Your task to perform on an android device: read, delete, or share a saved page in the chrome app Image 0: 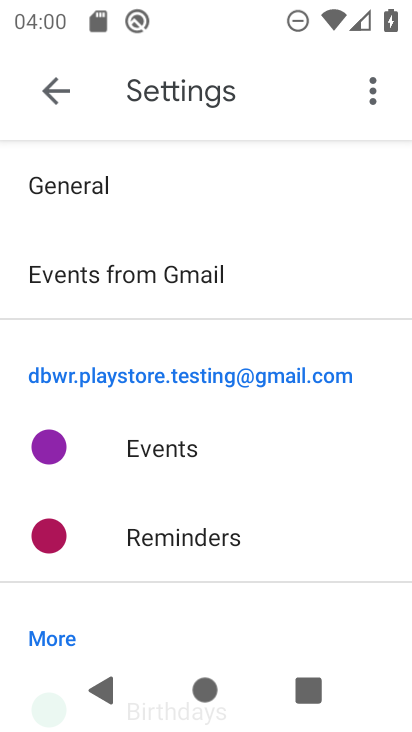
Step 0: press home button
Your task to perform on an android device: read, delete, or share a saved page in the chrome app Image 1: 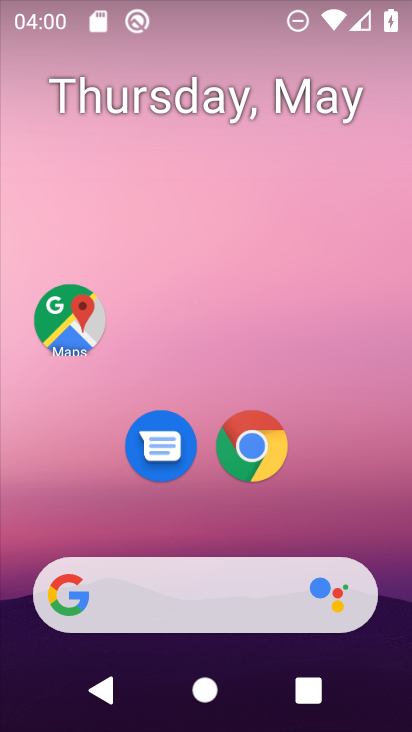
Step 1: click (244, 439)
Your task to perform on an android device: read, delete, or share a saved page in the chrome app Image 2: 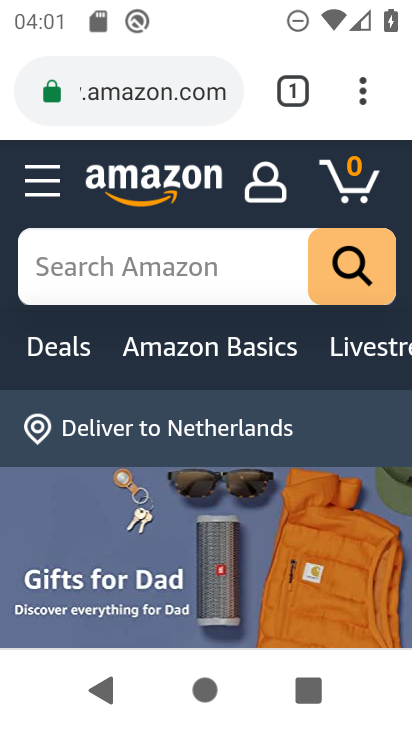
Step 2: click (357, 90)
Your task to perform on an android device: read, delete, or share a saved page in the chrome app Image 3: 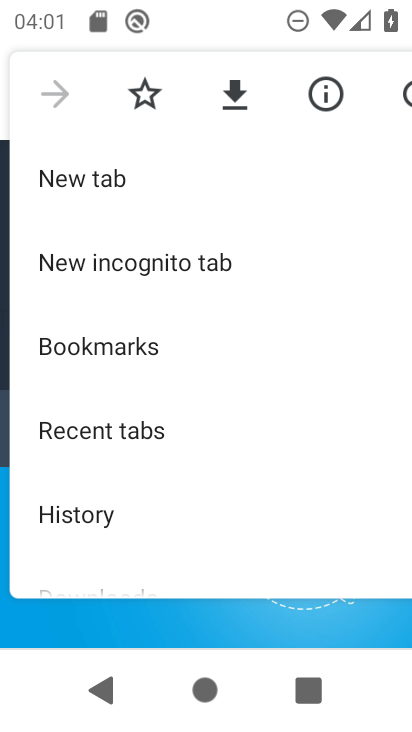
Step 3: drag from (212, 480) to (214, 209)
Your task to perform on an android device: read, delete, or share a saved page in the chrome app Image 4: 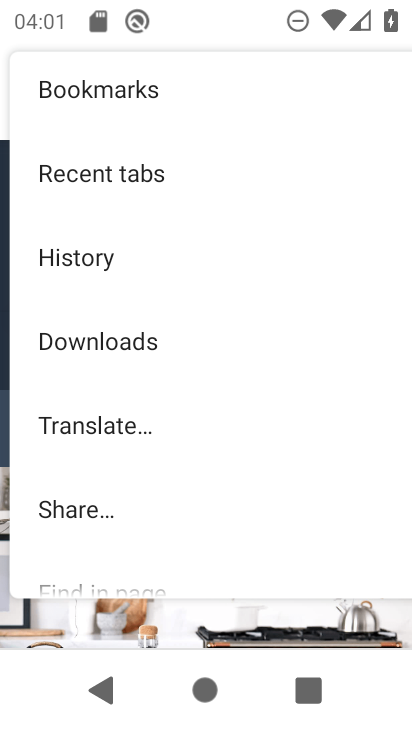
Step 4: click (85, 344)
Your task to perform on an android device: read, delete, or share a saved page in the chrome app Image 5: 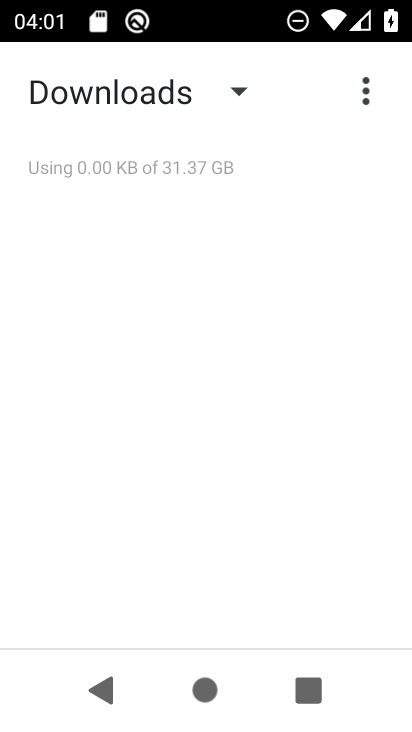
Step 5: click (234, 93)
Your task to perform on an android device: read, delete, or share a saved page in the chrome app Image 6: 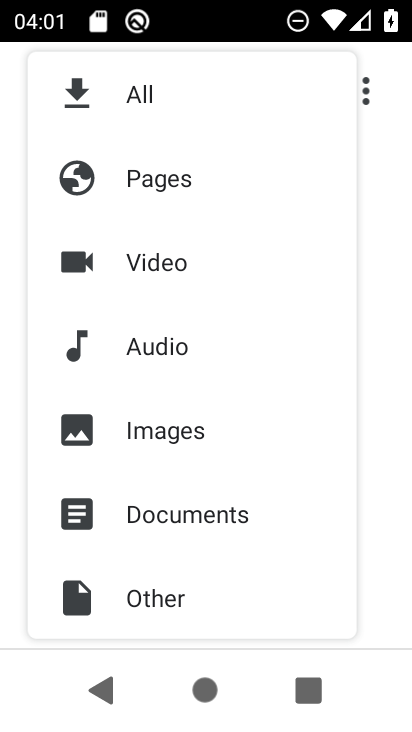
Step 6: click (163, 190)
Your task to perform on an android device: read, delete, or share a saved page in the chrome app Image 7: 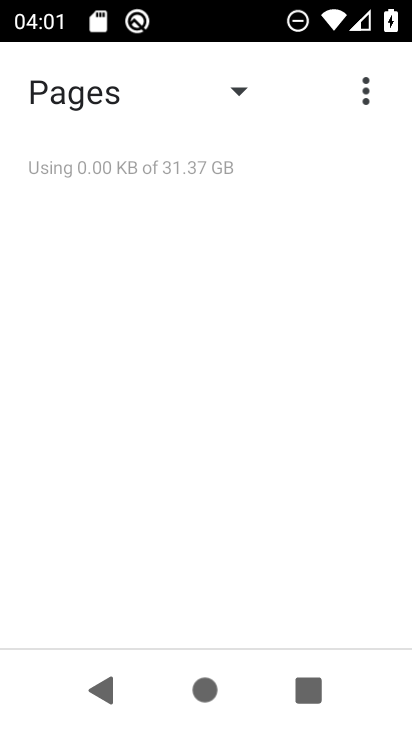
Step 7: task complete